Your task to perform on an android device: Go to Wikipedia Image 0: 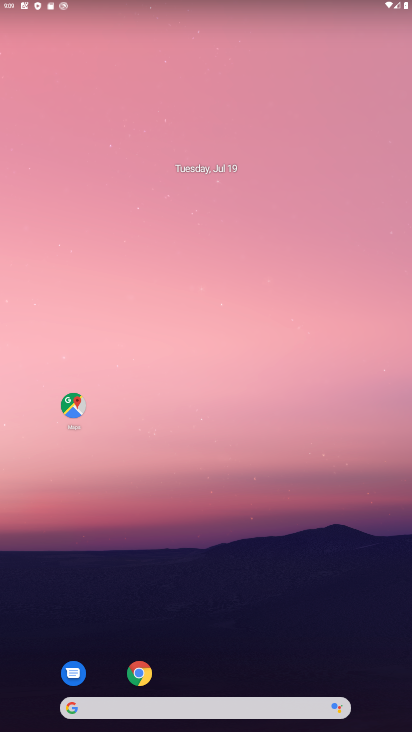
Step 0: click (136, 669)
Your task to perform on an android device: Go to Wikipedia Image 1: 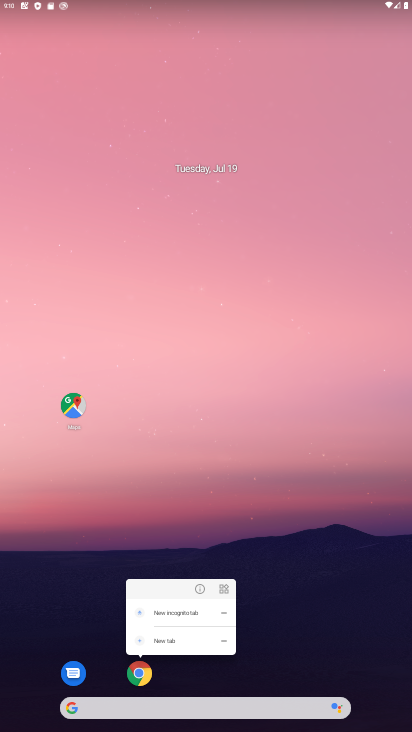
Step 1: click (137, 668)
Your task to perform on an android device: Go to Wikipedia Image 2: 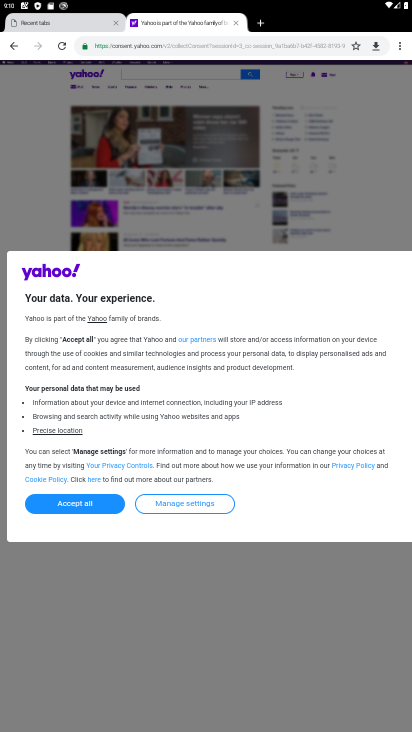
Step 2: click (266, 23)
Your task to perform on an android device: Go to Wikipedia Image 3: 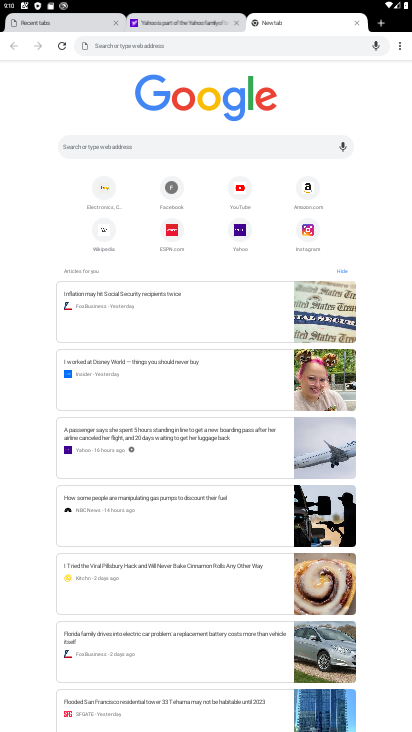
Step 3: click (90, 231)
Your task to perform on an android device: Go to Wikipedia Image 4: 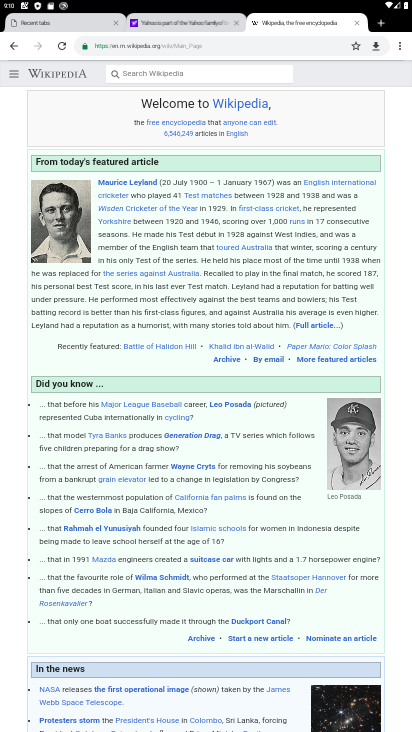
Step 4: task complete